Your task to perform on an android device: open app "Microsoft Excel" Image 0: 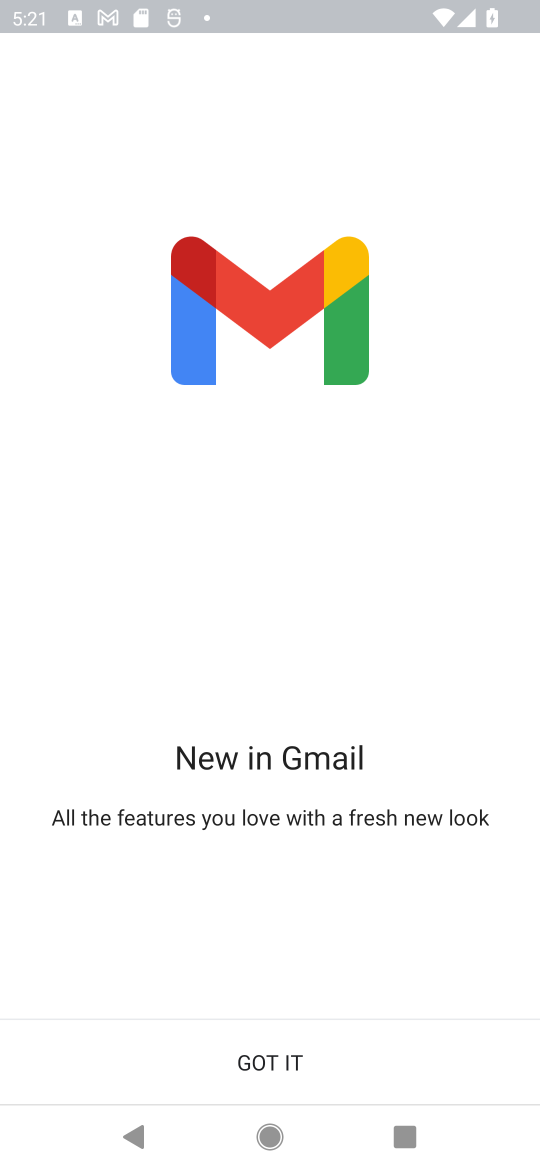
Step 0: press home button
Your task to perform on an android device: open app "Microsoft Excel" Image 1: 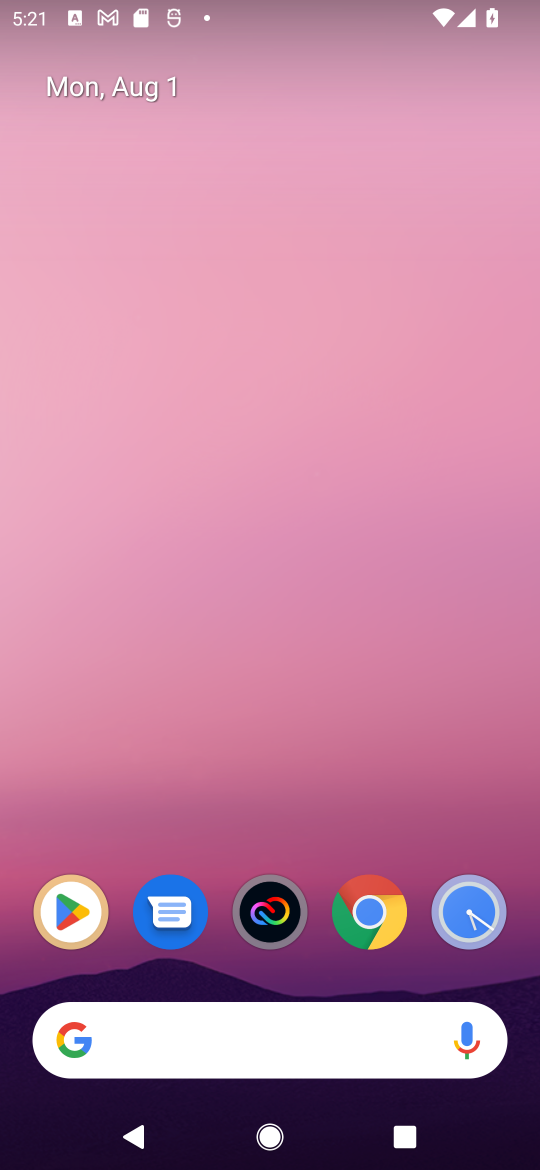
Step 1: click (74, 911)
Your task to perform on an android device: open app "Microsoft Excel" Image 2: 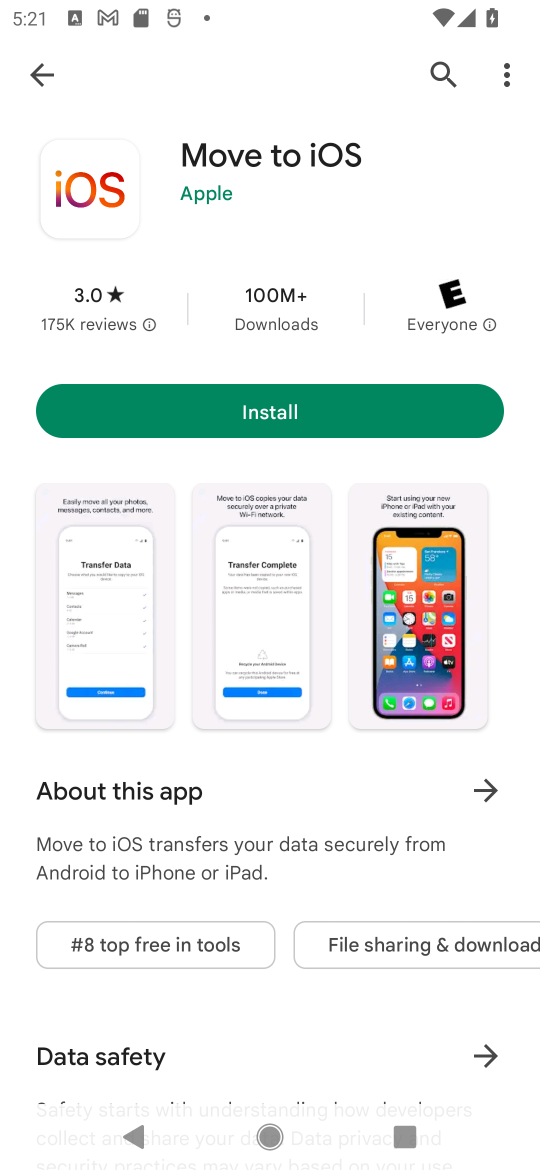
Step 2: click (441, 72)
Your task to perform on an android device: open app "Microsoft Excel" Image 3: 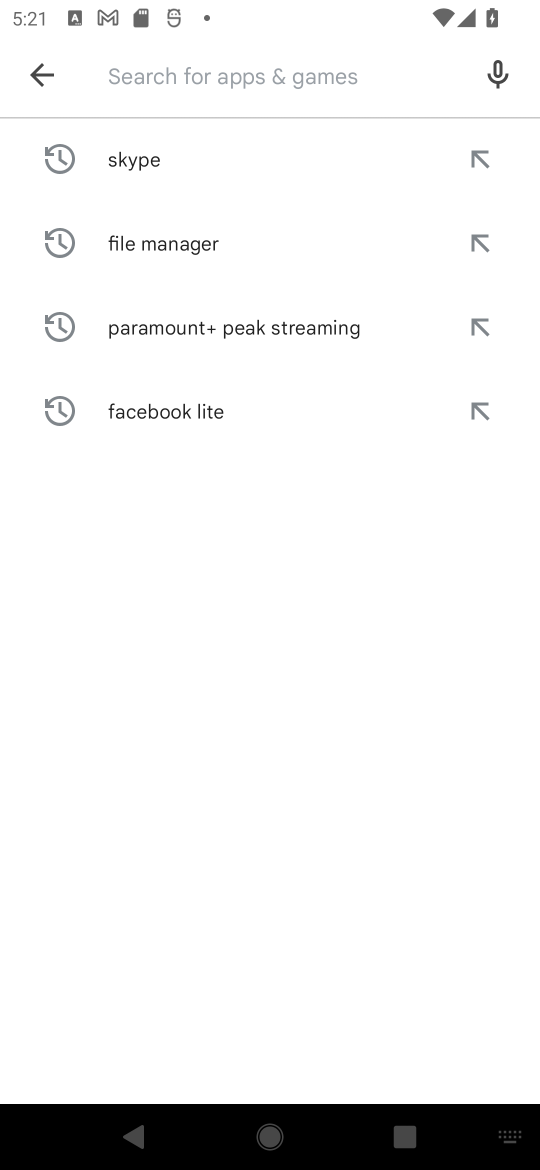
Step 3: type "Microsoft Excel"
Your task to perform on an android device: open app "Microsoft Excel" Image 4: 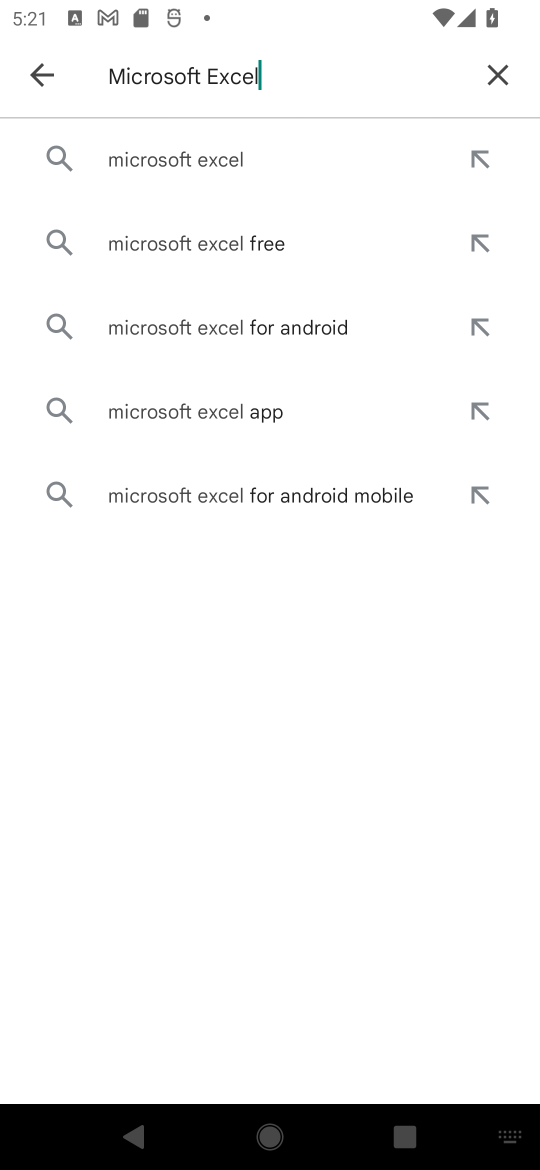
Step 4: click (129, 175)
Your task to perform on an android device: open app "Microsoft Excel" Image 5: 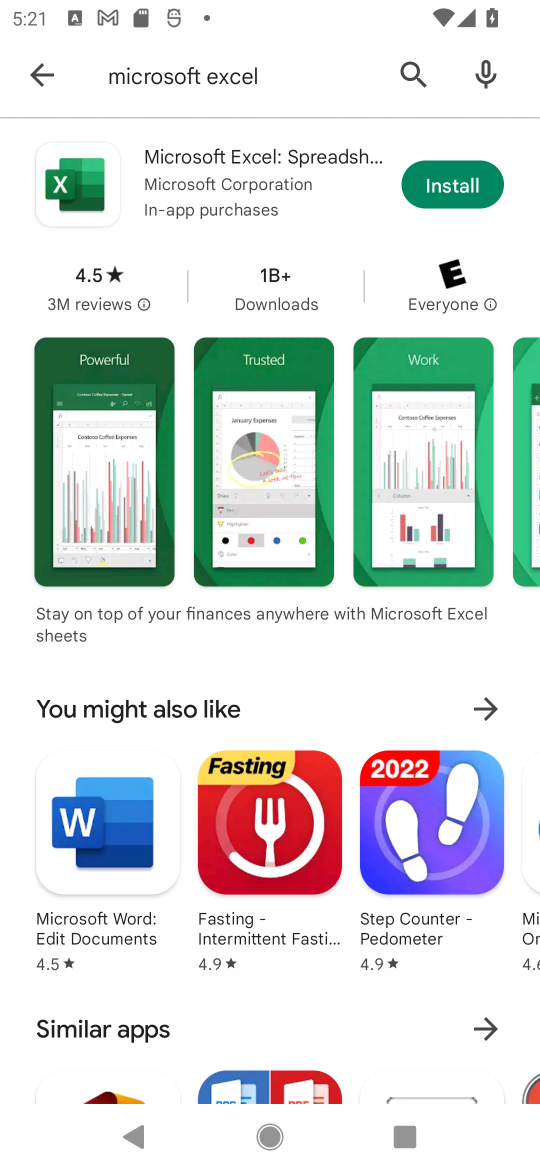
Step 5: task complete